Your task to perform on an android device: Empty the shopping cart on walmart. Add "jbl charge 4" to the cart on walmart Image 0: 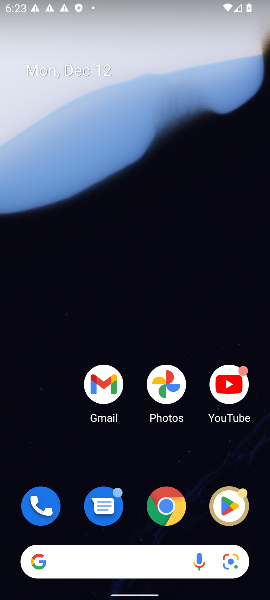
Step 0: click (138, 565)
Your task to perform on an android device: Empty the shopping cart on walmart. Add "jbl charge 4" to the cart on walmart Image 1: 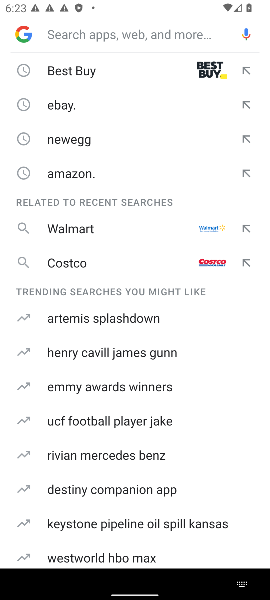
Step 1: click (95, 224)
Your task to perform on an android device: Empty the shopping cart on walmart. Add "jbl charge 4" to the cart on walmart Image 2: 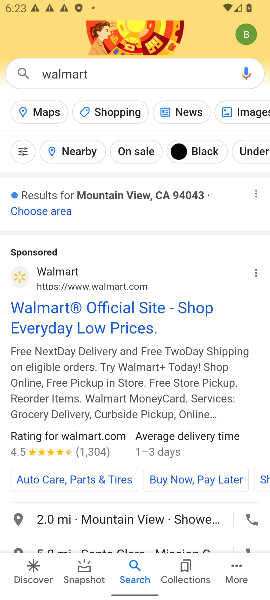
Step 2: click (68, 328)
Your task to perform on an android device: Empty the shopping cart on walmart. Add "jbl charge 4" to the cart on walmart Image 3: 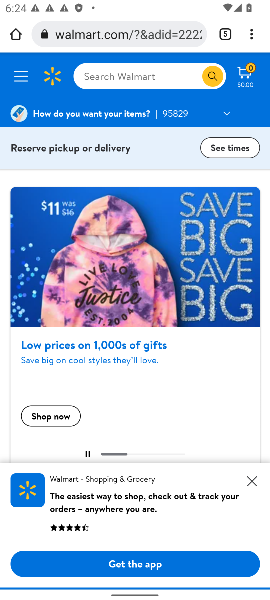
Step 3: click (117, 82)
Your task to perform on an android device: Empty the shopping cart on walmart. Add "jbl charge 4" to the cart on walmart Image 4: 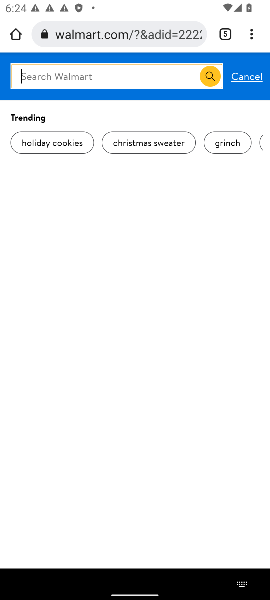
Step 4: type "jbl charge 4"
Your task to perform on an android device: Empty the shopping cart on walmart. Add "jbl charge 4" to the cart on walmart Image 5: 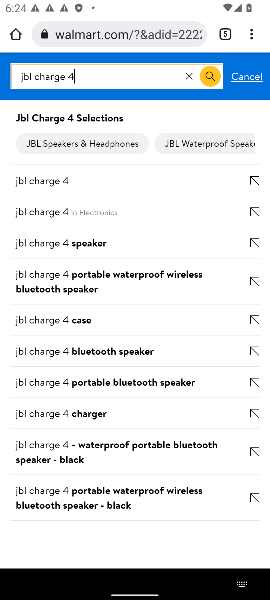
Step 5: click (42, 180)
Your task to perform on an android device: Empty the shopping cart on walmart. Add "jbl charge 4" to the cart on walmart Image 6: 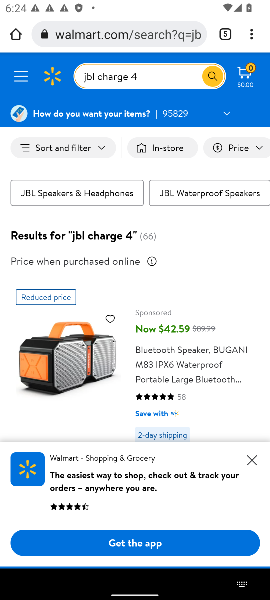
Step 6: click (254, 463)
Your task to perform on an android device: Empty the shopping cart on walmart. Add "jbl charge 4" to the cart on walmart Image 7: 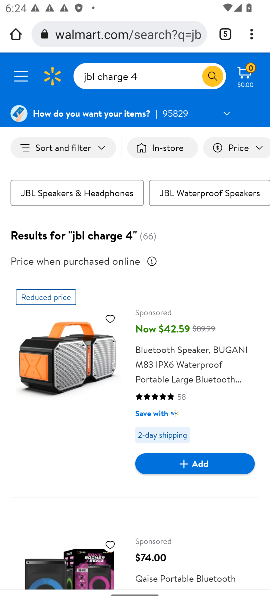
Step 7: click (219, 465)
Your task to perform on an android device: Empty the shopping cart on walmart. Add "jbl charge 4" to the cart on walmart Image 8: 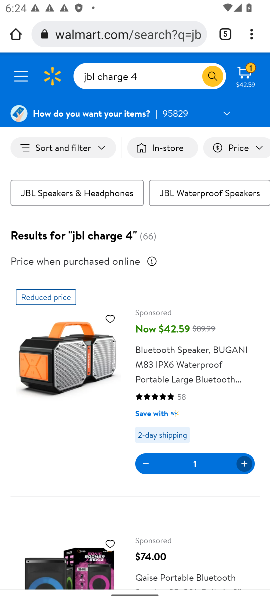
Step 8: task complete